Your task to perform on an android device: What is the recent news? Image 0: 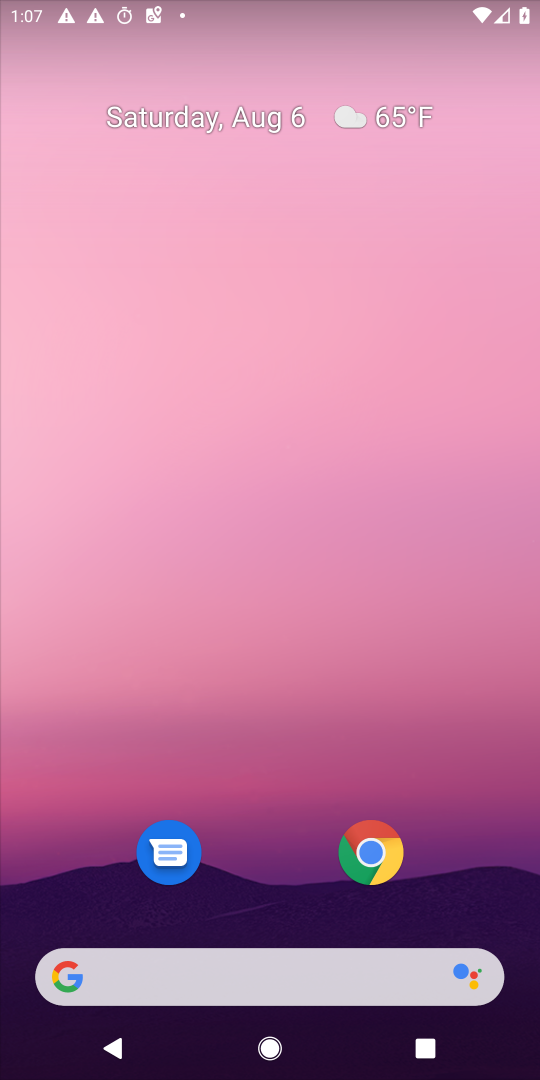
Step 0: press home button
Your task to perform on an android device: What is the recent news? Image 1: 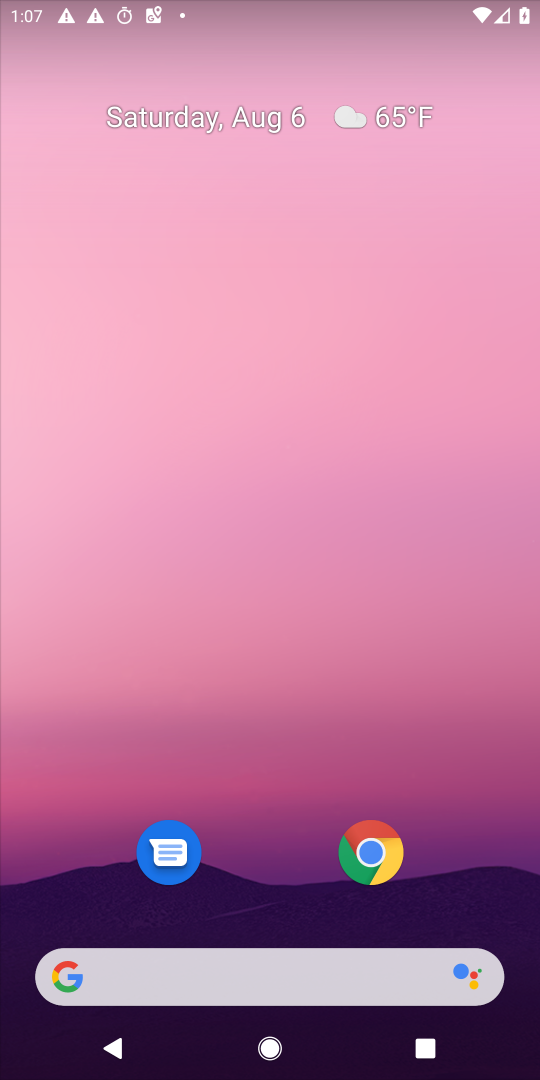
Step 1: drag from (361, 946) to (227, 282)
Your task to perform on an android device: What is the recent news? Image 2: 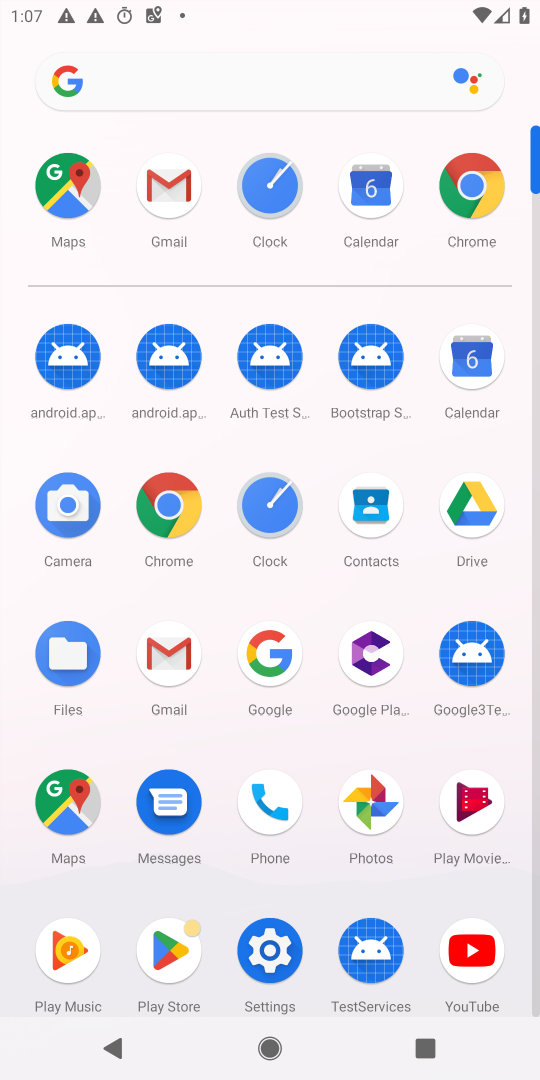
Step 2: click (141, 87)
Your task to perform on an android device: What is the recent news? Image 3: 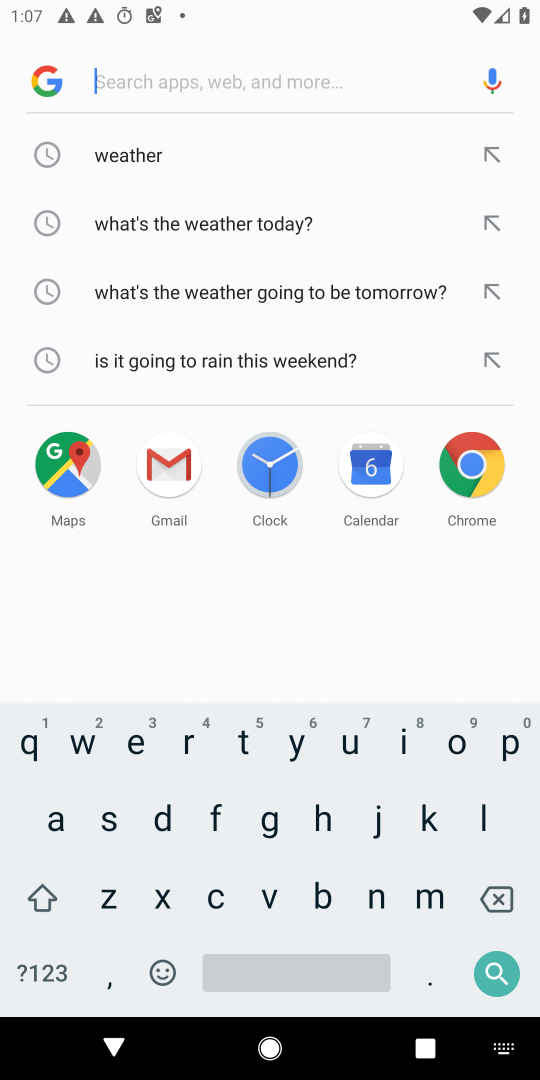
Step 3: click (178, 755)
Your task to perform on an android device: What is the recent news? Image 4: 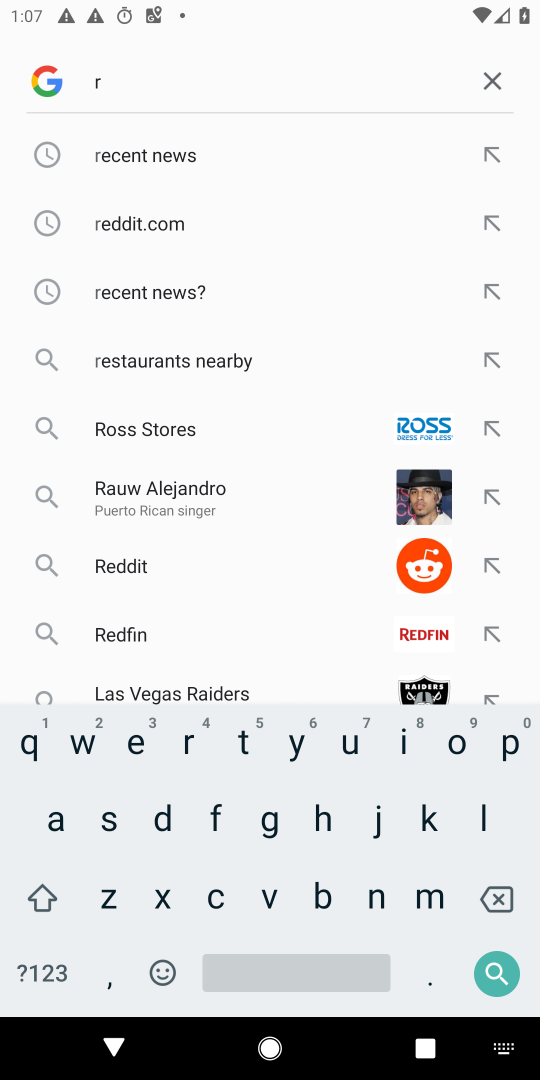
Step 4: click (138, 739)
Your task to perform on an android device: What is the recent news? Image 5: 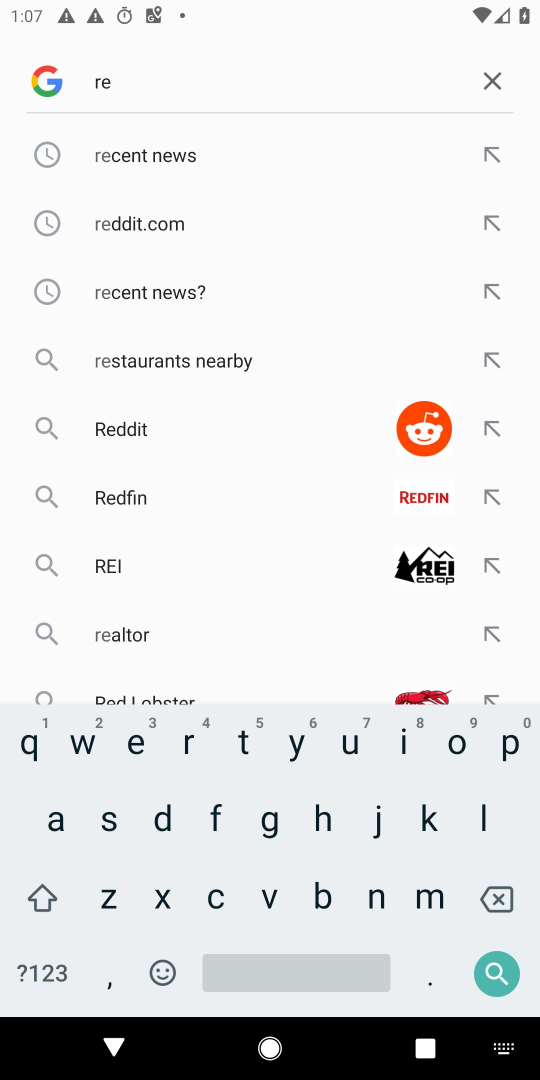
Step 5: click (158, 164)
Your task to perform on an android device: What is the recent news? Image 6: 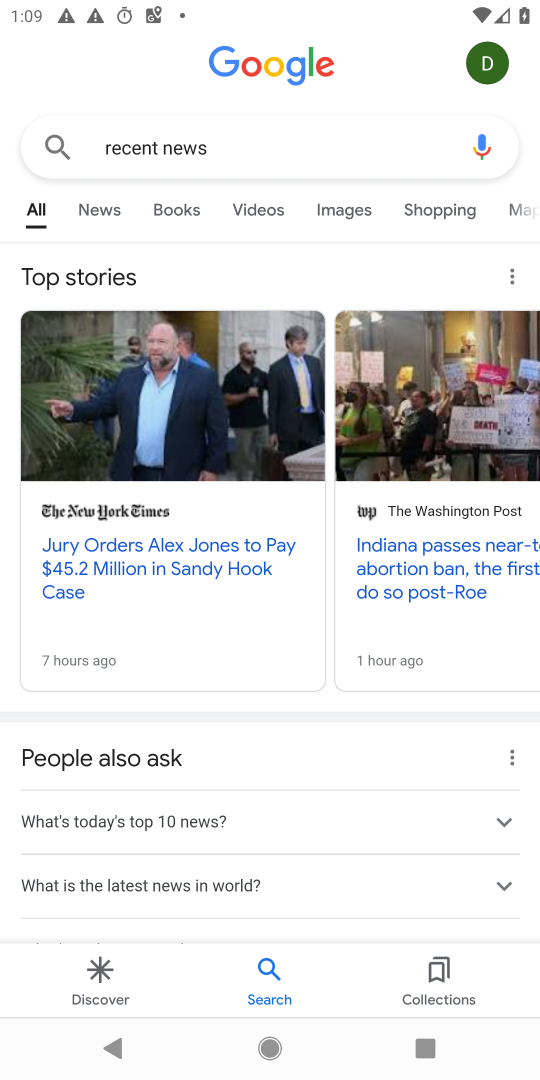
Step 6: task complete